Your task to perform on an android device: Show the shopping cart on ebay.com. Add bose soundsport free to the cart on ebay.com, then select checkout. Image 0: 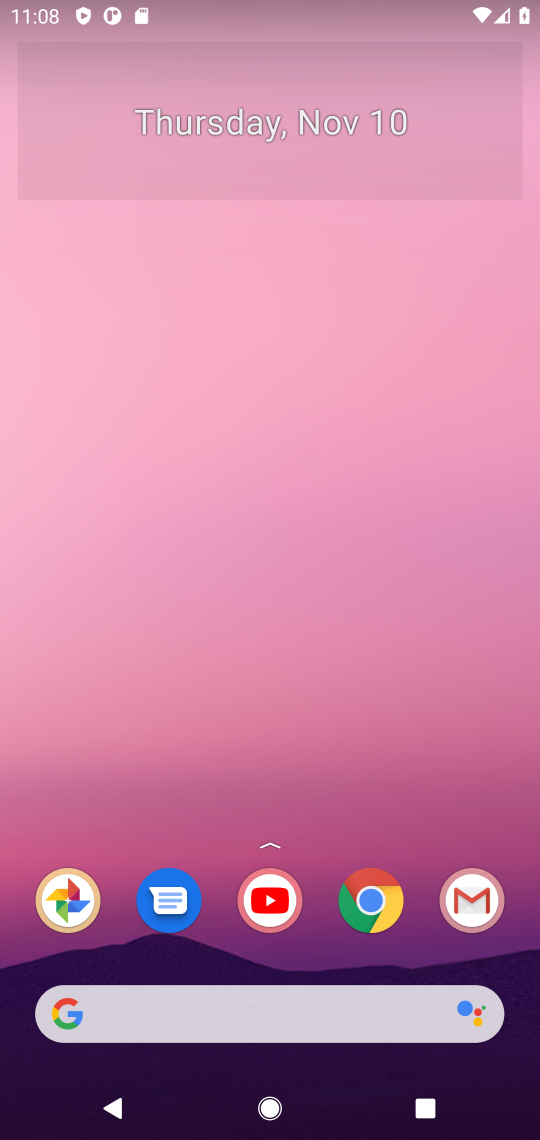
Step 0: click (370, 904)
Your task to perform on an android device: Show the shopping cart on ebay.com. Add bose soundsport free to the cart on ebay.com, then select checkout. Image 1: 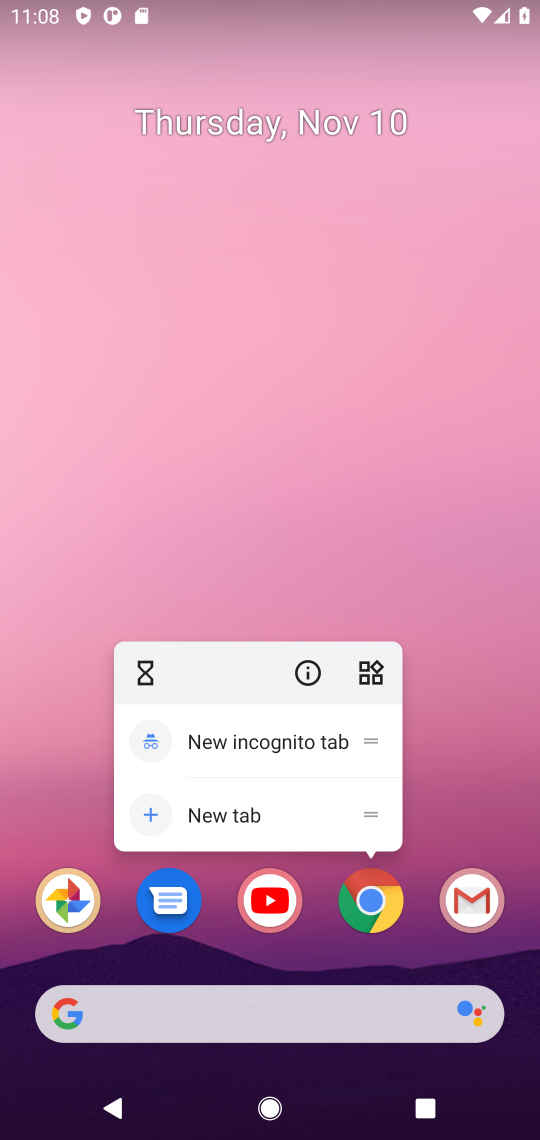
Step 1: click (370, 905)
Your task to perform on an android device: Show the shopping cart on ebay.com. Add bose soundsport free to the cart on ebay.com, then select checkout. Image 2: 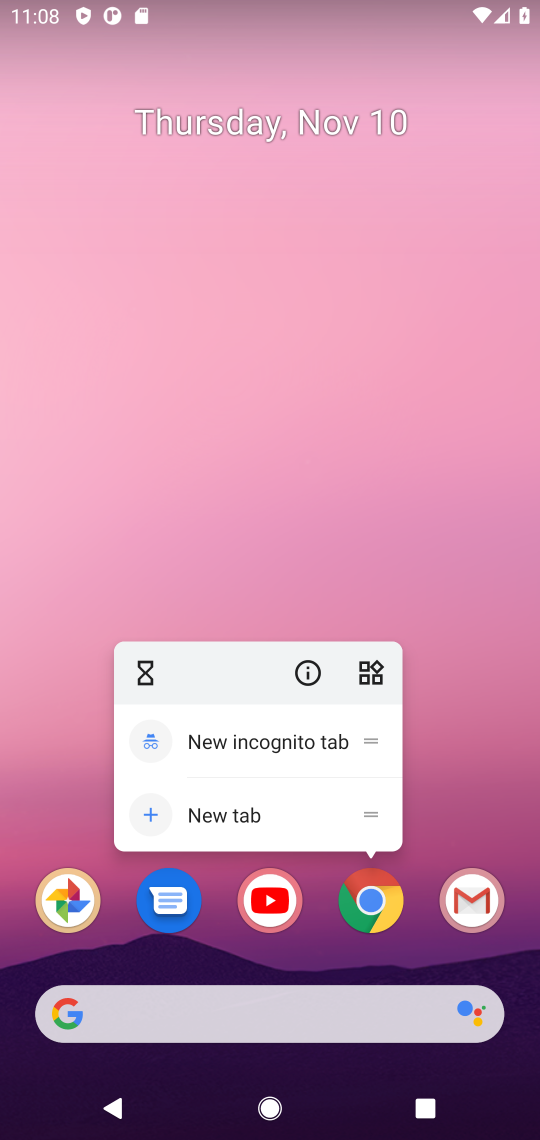
Step 2: click (370, 906)
Your task to perform on an android device: Show the shopping cart on ebay.com. Add bose soundsport free to the cart on ebay.com, then select checkout. Image 3: 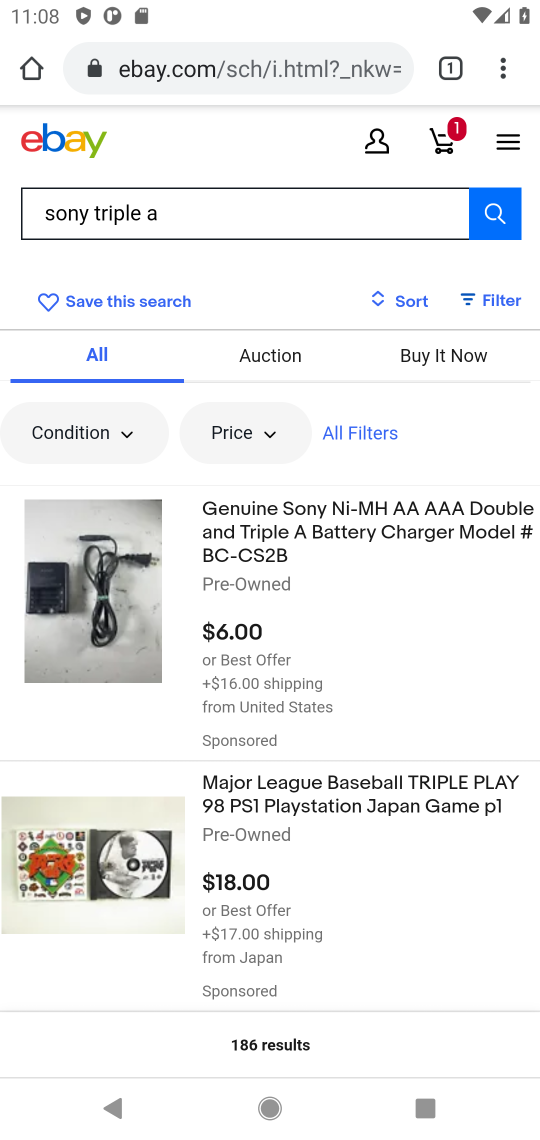
Step 3: click (305, 201)
Your task to perform on an android device: Show the shopping cart on ebay.com. Add bose soundsport free to the cart on ebay.com, then select checkout. Image 4: 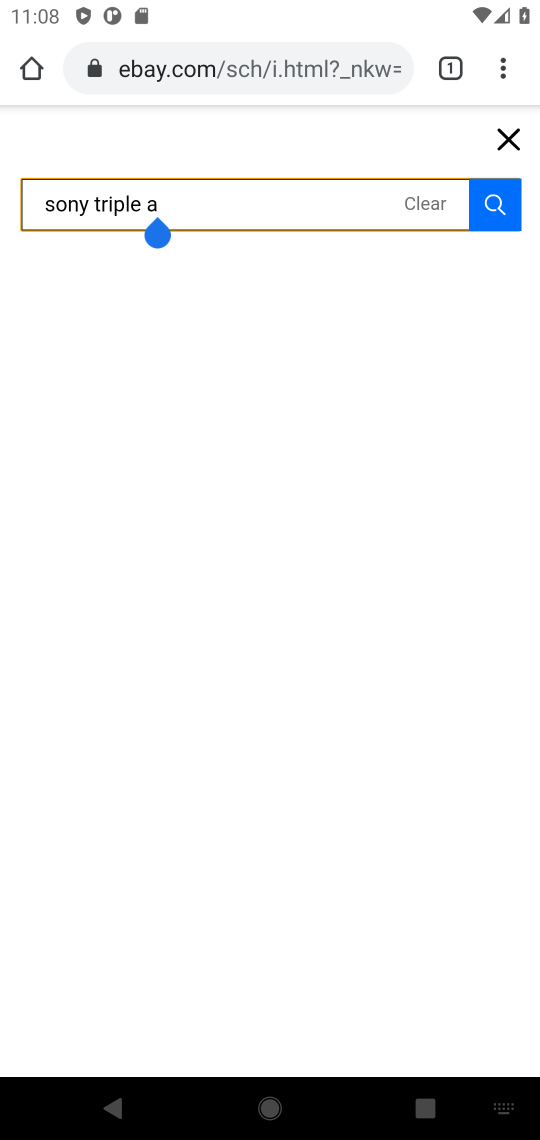
Step 4: click (419, 207)
Your task to perform on an android device: Show the shopping cart on ebay.com. Add bose soundsport free to the cart on ebay.com, then select checkout. Image 5: 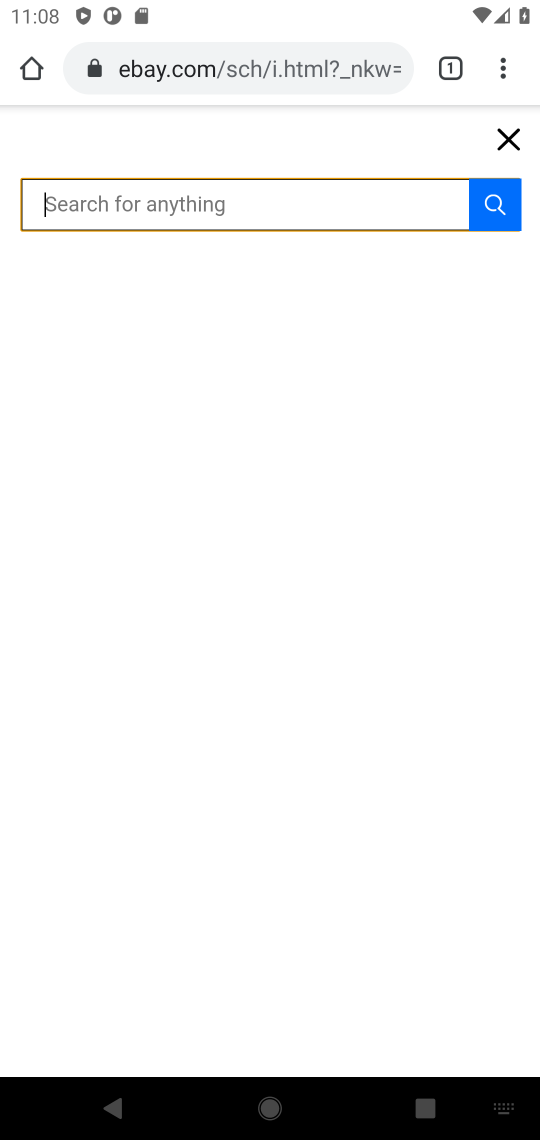
Step 5: type "bose soundsport free"
Your task to perform on an android device: Show the shopping cart on ebay.com. Add bose soundsport free to the cart on ebay.com, then select checkout. Image 6: 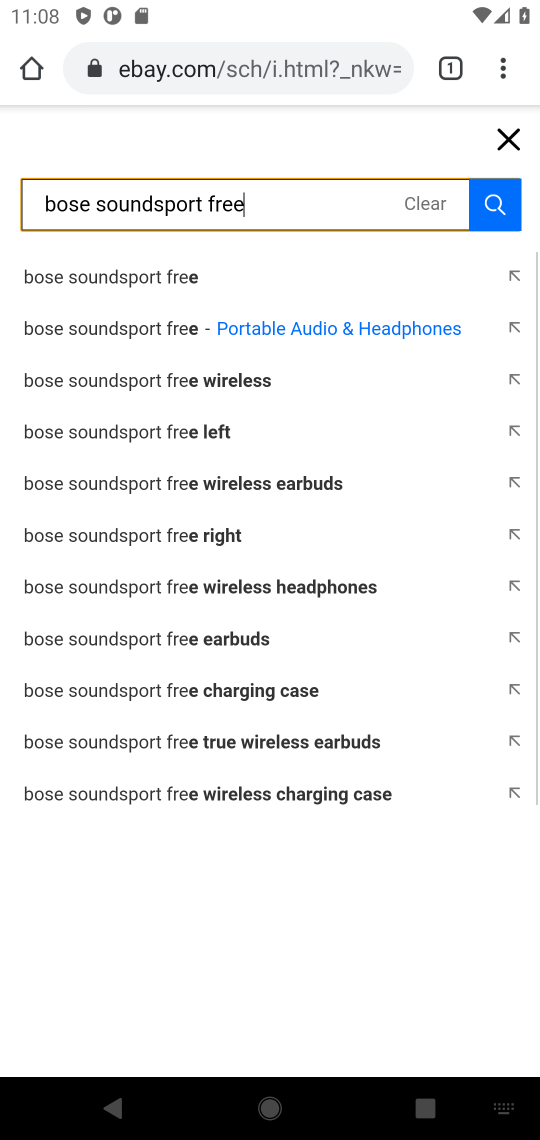
Step 6: press enter
Your task to perform on an android device: Show the shopping cart on ebay.com. Add bose soundsport free to the cart on ebay.com, then select checkout. Image 7: 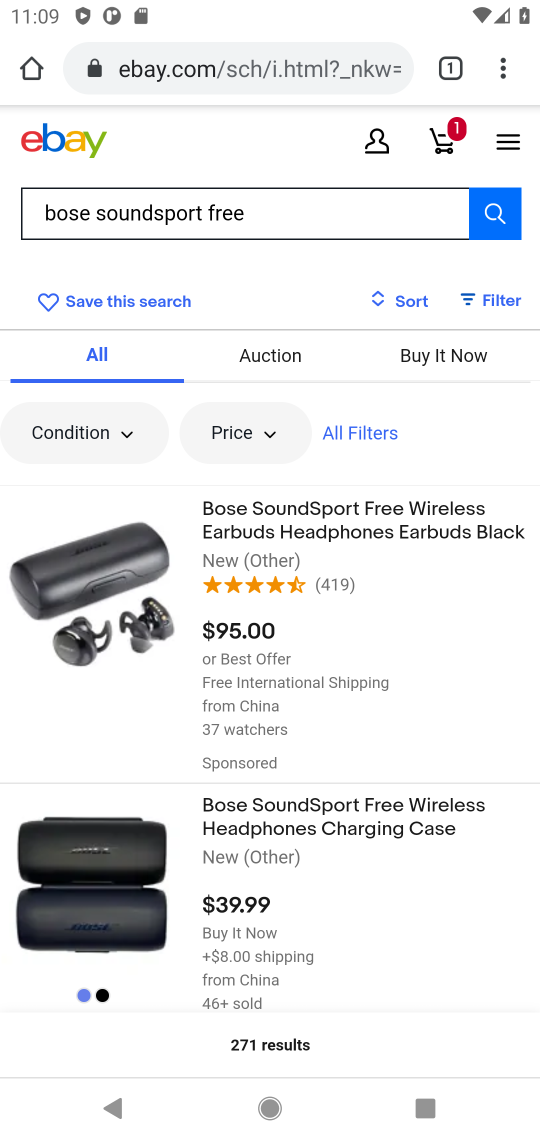
Step 7: click (324, 516)
Your task to perform on an android device: Show the shopping cart on ebay.com. Add bose soundsport free to the cart on ebay.com, then select checkout. Image 8: 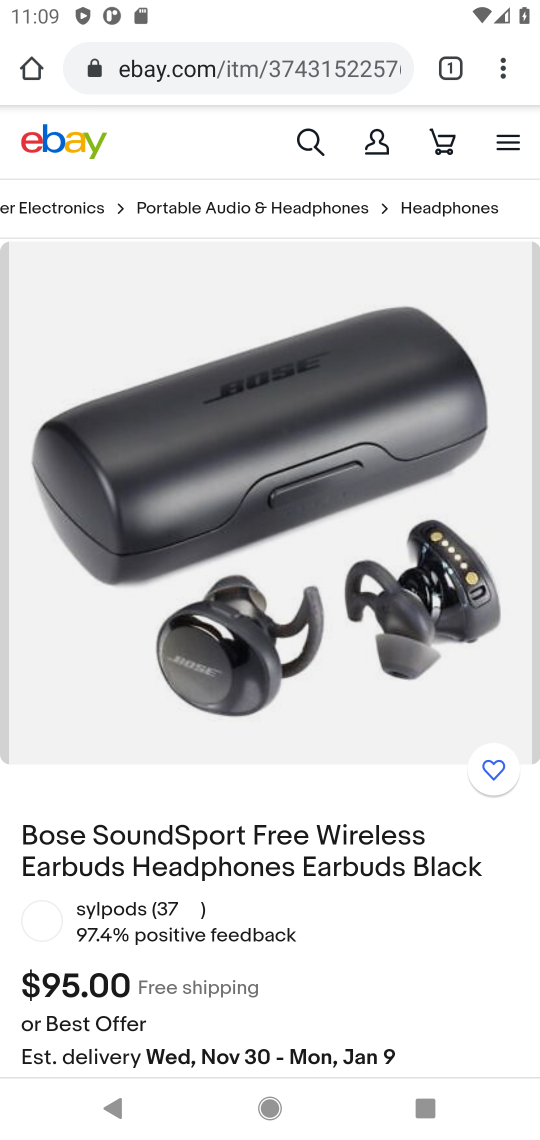
Step 8: drag from (351, 968) to (477, 251)
Your task to perform on an android device: Show the shopping cart on ebay.com. Add bose soundsport free to the cart on ebay.com, then select checkout. Image 9: 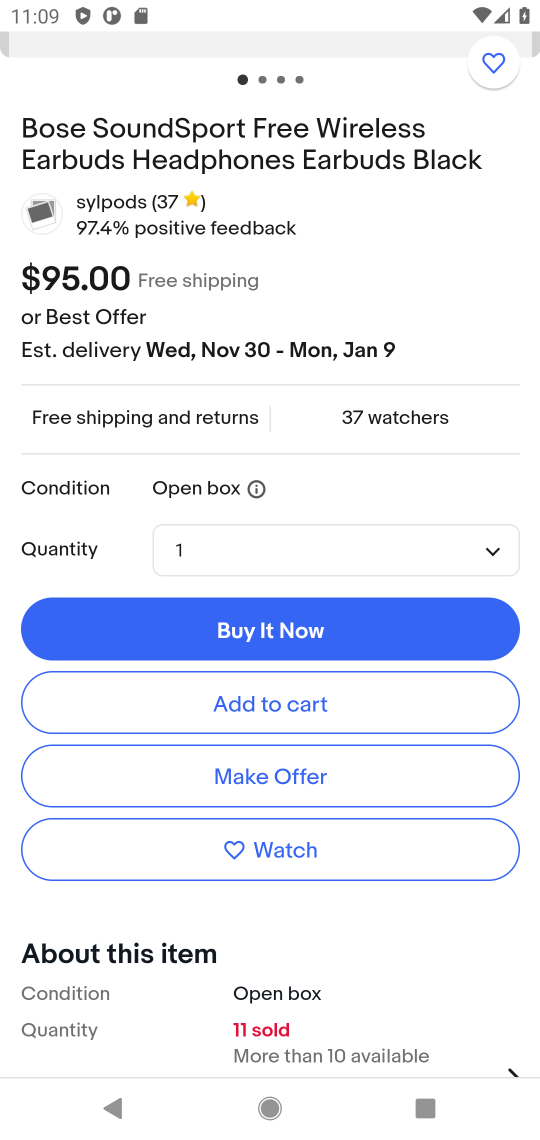
Step 9: click (287, 708)
Your task to perform on an android device: Show the shopping cart on ebay.com. Add bose soundsport free to the cart on ebay.com, then select checkout. Image 10: 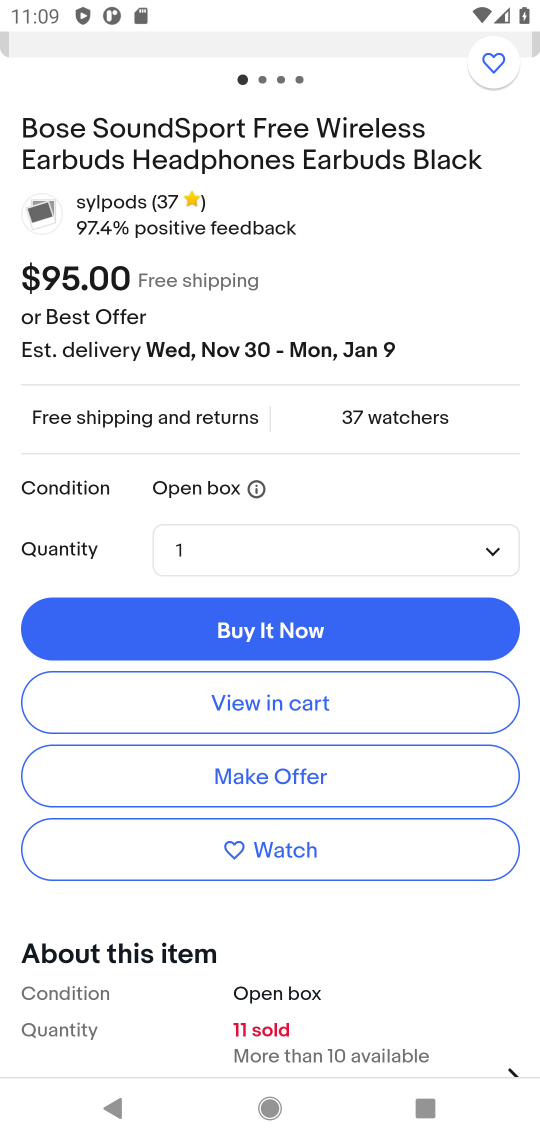
Step 10: click (293, 699)
Your task to perform on an android device: Show the shopping cart on ebay.com. Add bose soundsport free to the cart on ebay.com, then select checkout. Image 11: 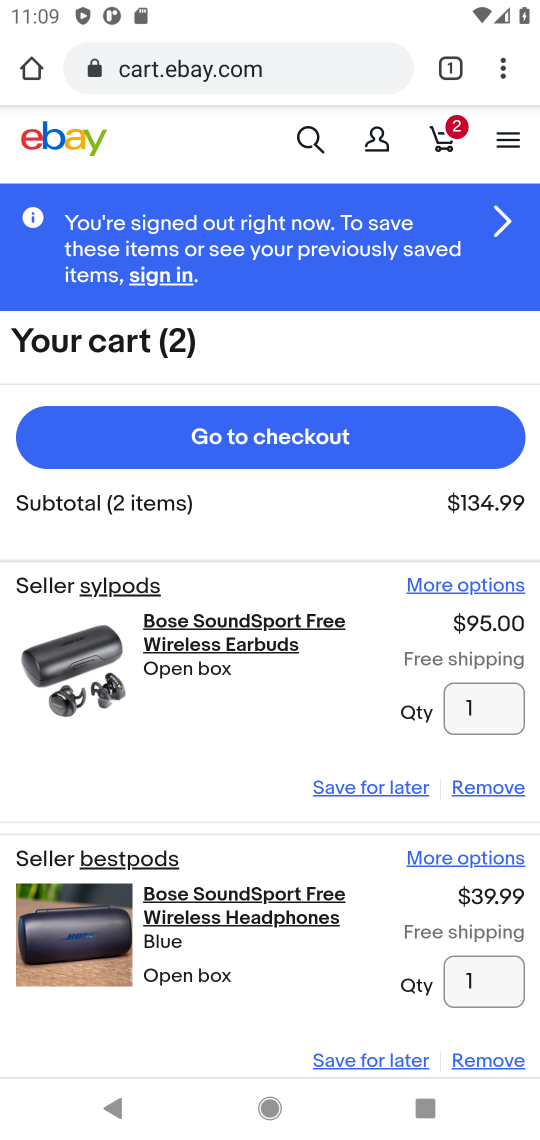
Step 11: click (490, 1063)
Your task to perform on an android device: Show the shopping cart on ebay.com. Add bose soundsport free to the cart on ebay.com, then select checkout. Image 12: 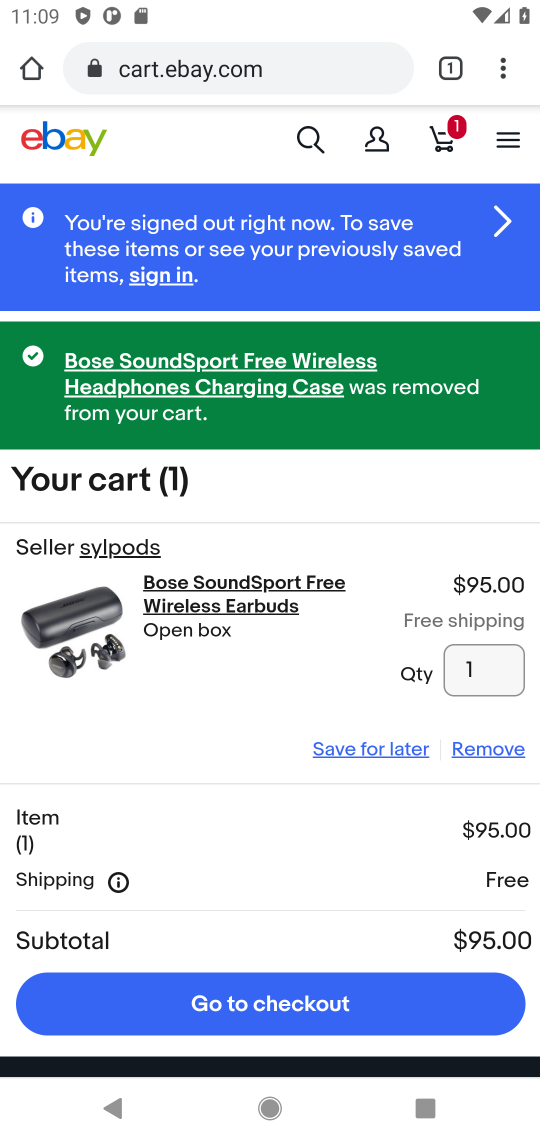
Step 12: click (295, 999)
Your task to perform on an android device: Show the shopping cart on ebay.com. Add bose soundsport free to the cart on ebay.com, then select checkout. Image 13: 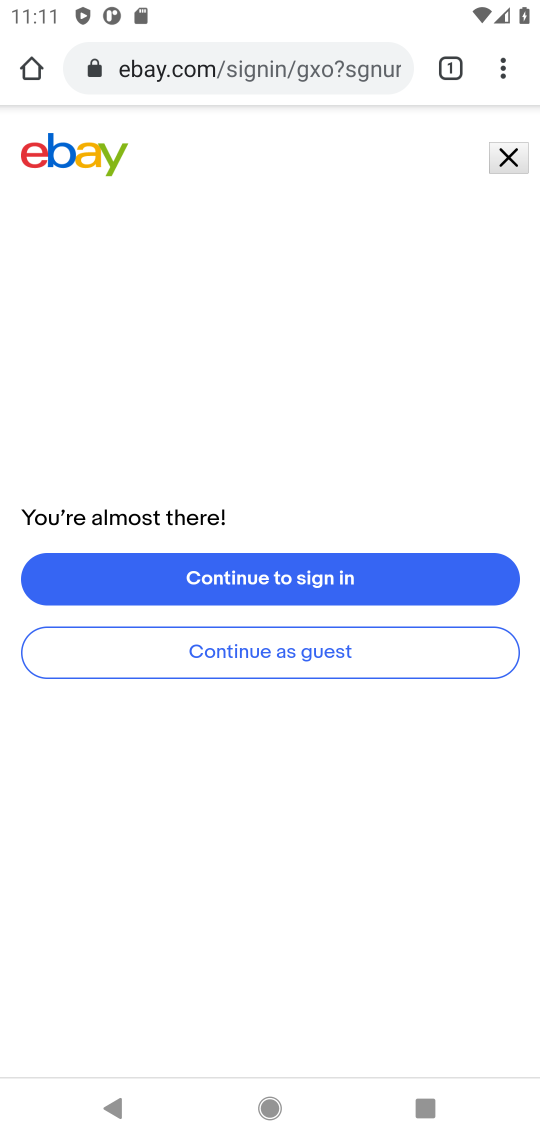
Step 13: task complete